Your task to perform on an android device: Open Chrome and go to the settings page Image 0: 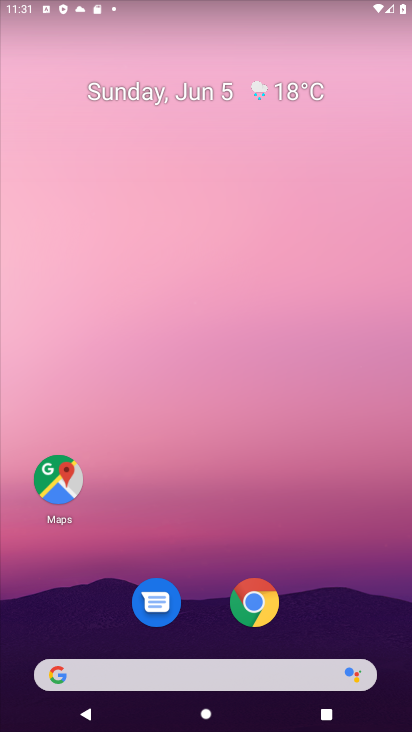
Step 0: task complete